Your task to perform on an android device: Open internet settings Image 0: 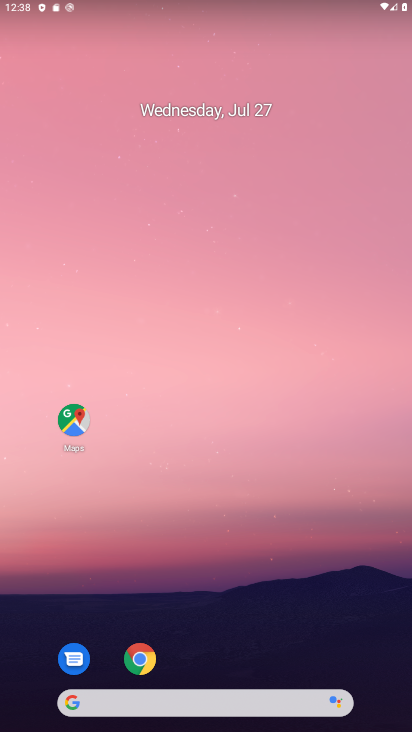
Step 0: drag from (297, 593) to (144, 117)
Your task to perform on an android device: Open internet settings Image 1: 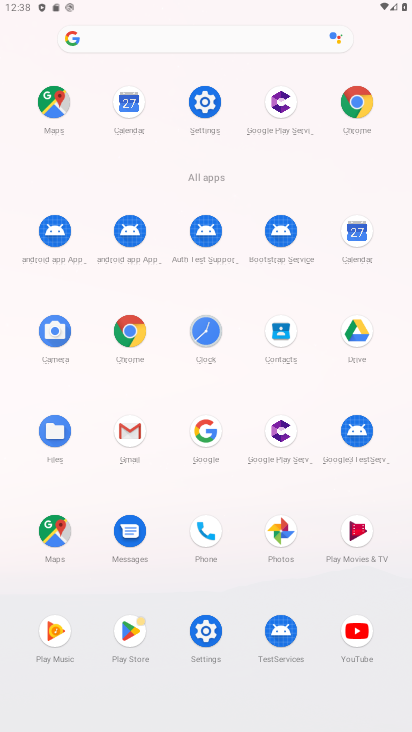
Step 1: click (190, 104)
Your task to perform on an android device: Open internet settings Image 2: 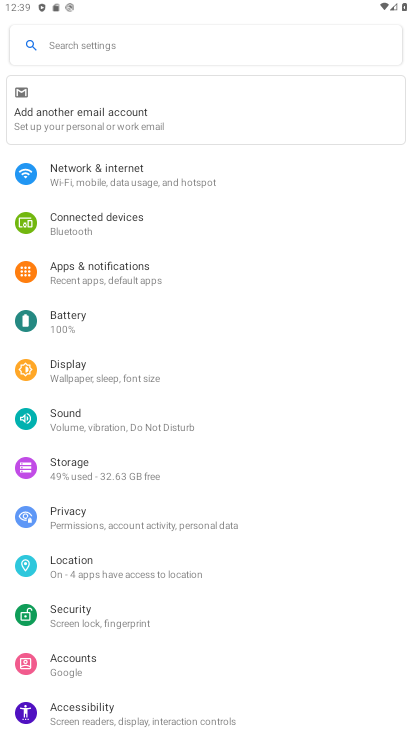
Step 2: click (148, 169)
Your task to perform on an android device: Open internet settings Image 3: 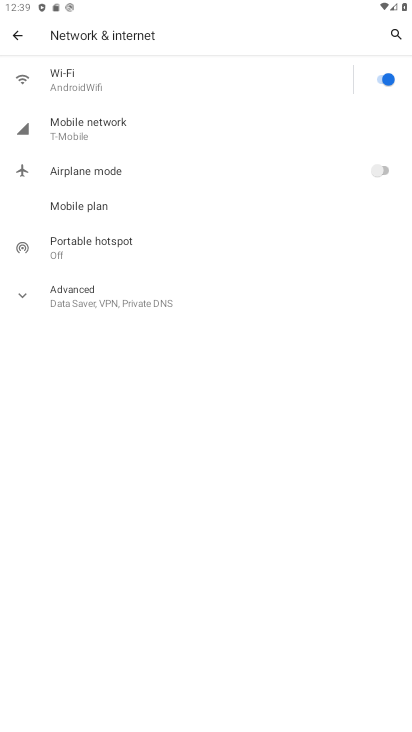
Step 3: click (106, 312)
Your task to perform on an android device: Open internet settings Image 4: 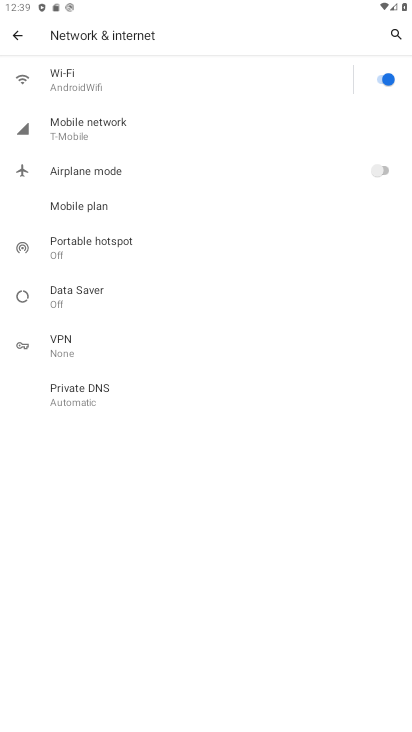
Step 4: task complete